Your task to perform on an android device: Search for seafood restaurants on Google Maps Image 0: 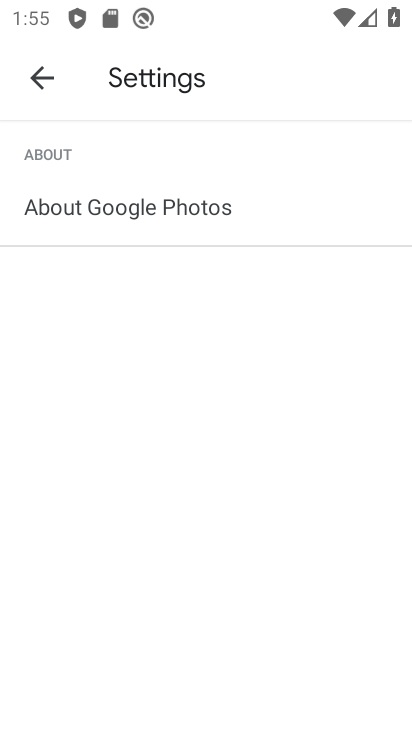
Step 0: press home button
Your task to perform on an android device: Search for seafood restaurants on Google Maps Image 1: 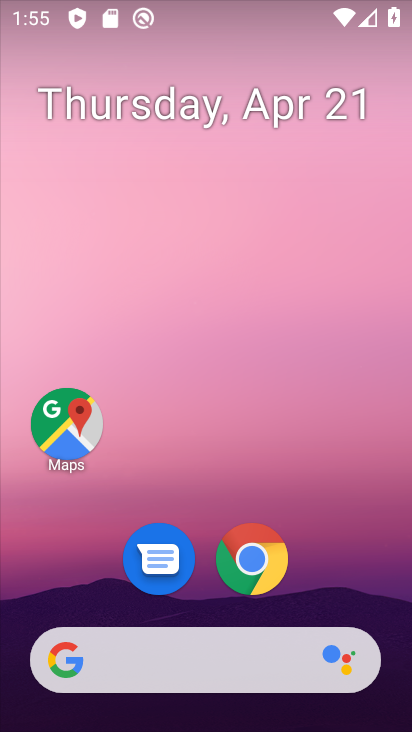
Step 1: click (77, 432)
Your task to perform on an android device: Search for seafood restaurants on Google Maps Image 2: 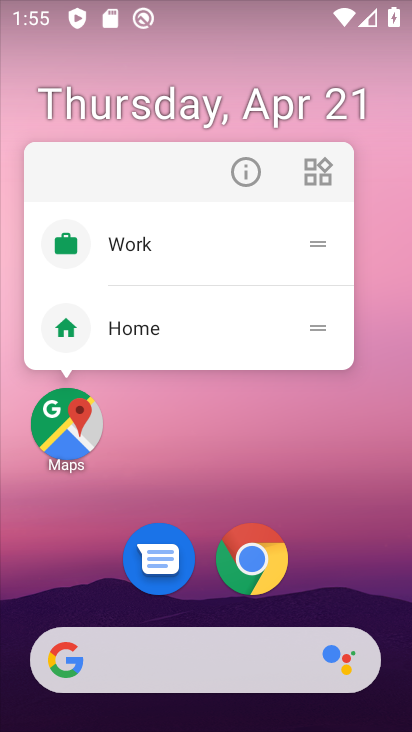
Step 2: click (214, 455)
Your task to perform on an android device: Search for seafood restaurants on Google Maps Image 3: 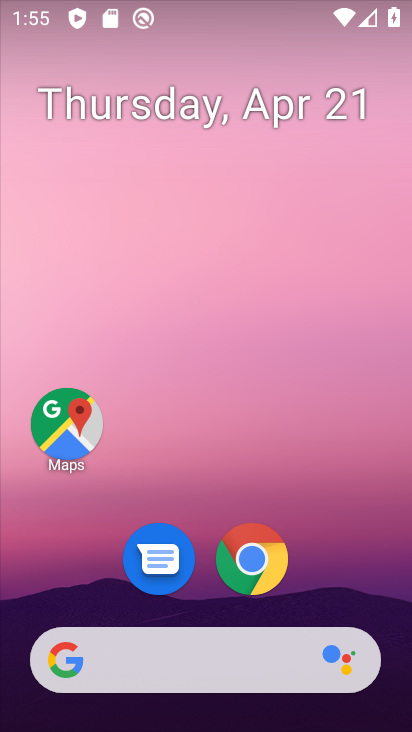
Step 3: click (70, 432)
Your task to perform on an android device: Search for seafood restaurants on Google Maps Image 4: 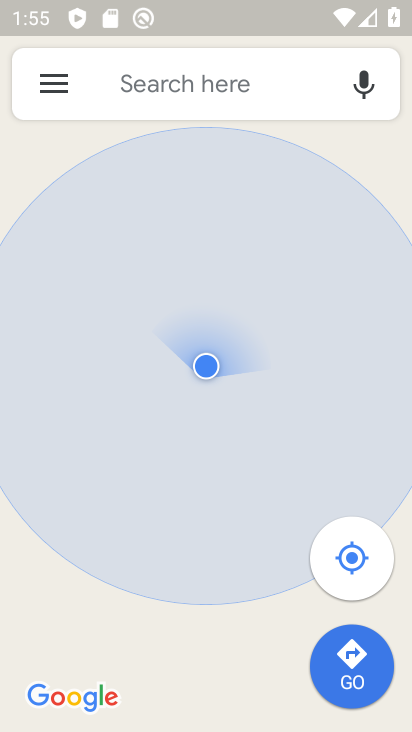
Step 4: click (172, 86)
Your task to perform on an android device: Search for seafood restaurants on Google Maps Image 5: 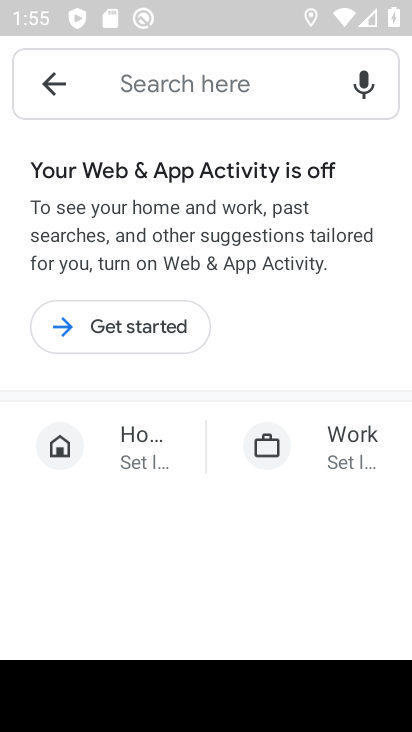
Step 5: click (143, 324)
Your task to perform on an android device: Search for seafood restaurants on Google Maps Image 6: 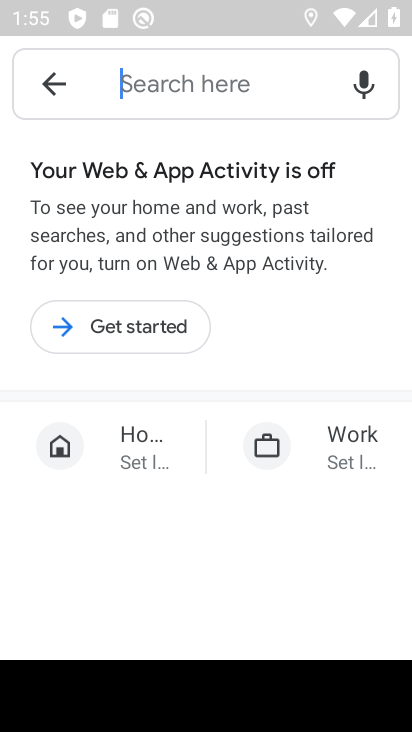
Step 6: click (143, 324)
Your task to perform on an android device: Search for seafood restaurants on Google Maps Image 7: 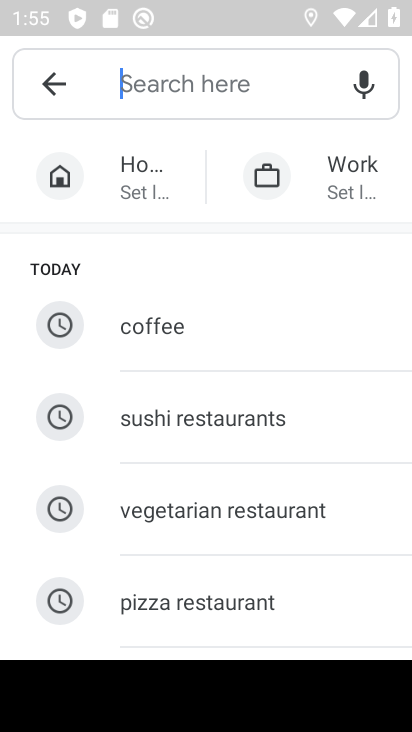
Step 7: click (220, 87)
Your task to perform on an android device: Search for seafood restaurants on Google Maps Image 8: 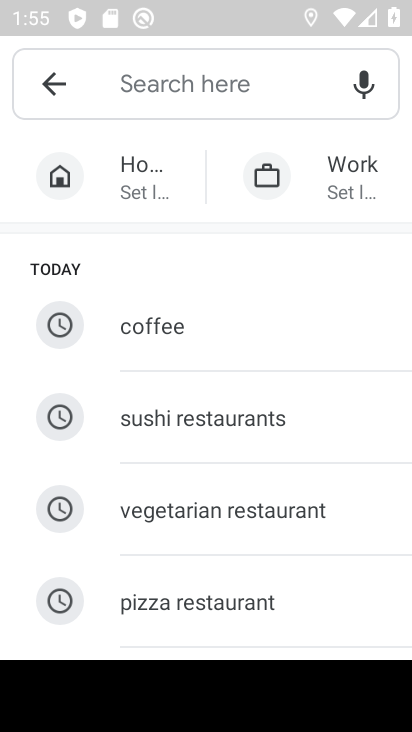
Step 8: type "seafood restaurent"
Your task to perform on an android device: Search for seafood restaurants on Google Maps Image 9: 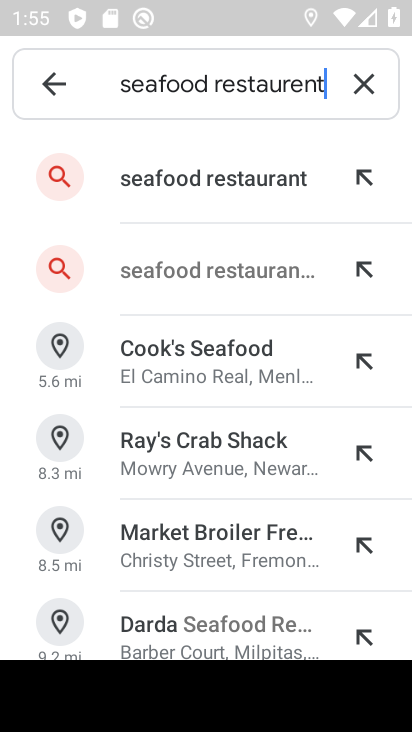
Step 9: click (212, 190)
Your task to perform on an android device: Search for seafood restaurants on Google Maps Image 10: 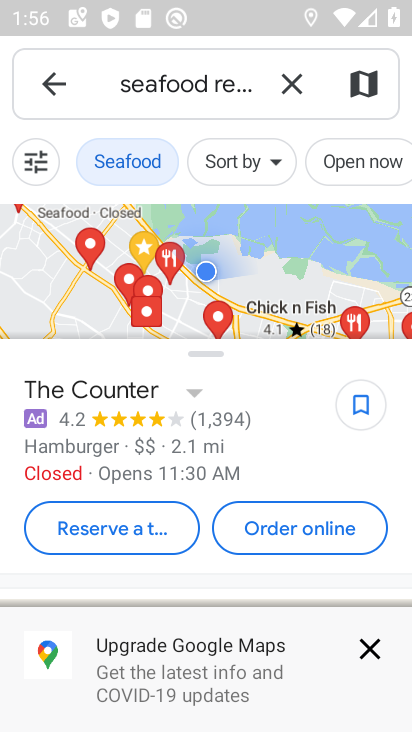
Step 10: task complete